Your task to perform on an android device: check android version Image 0: 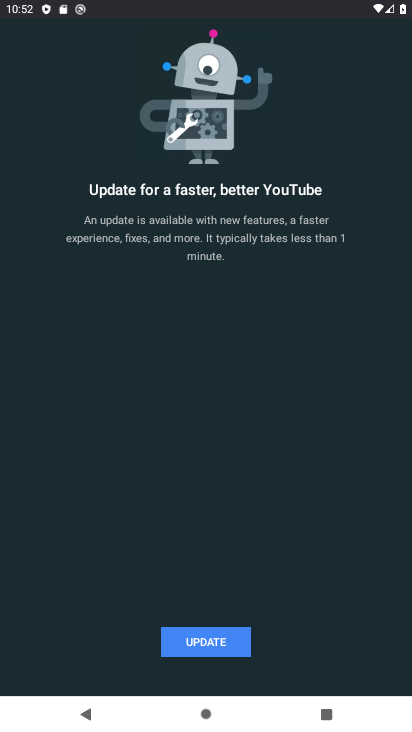
Step 0: click (136, 604)
Your task to perform on an android device: check android version Image 1: 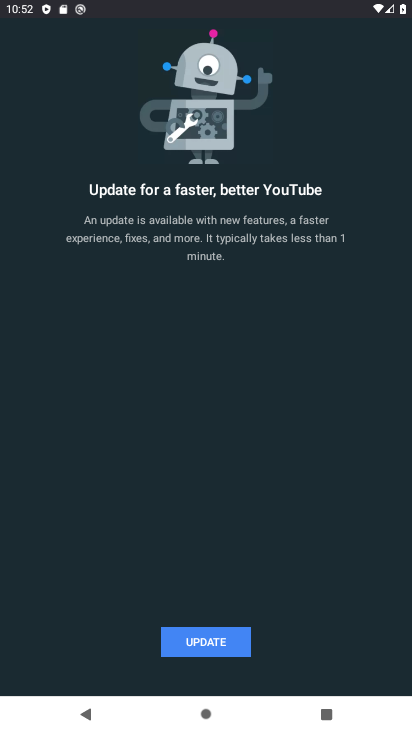
Step 1: press back button
Your task to perform on an android device: check android version Image 2: 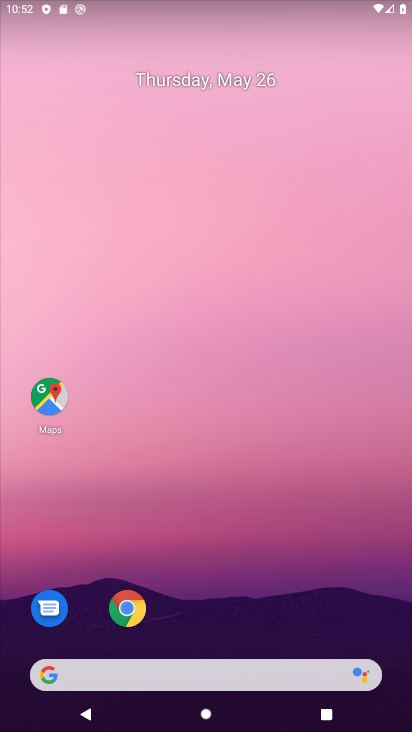
Step 2: drag from (209, 628) to (154, 134)
Your task to perform on an android device: check android version Image 3: 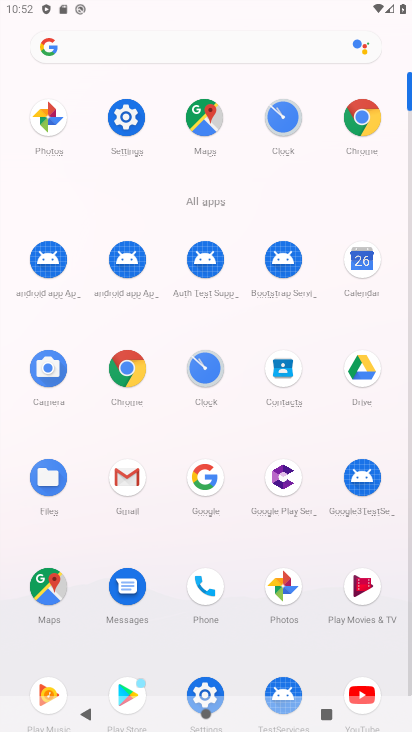
Step 3: click (130, 128)
Your task to perform on an android device: check android version Image 4: 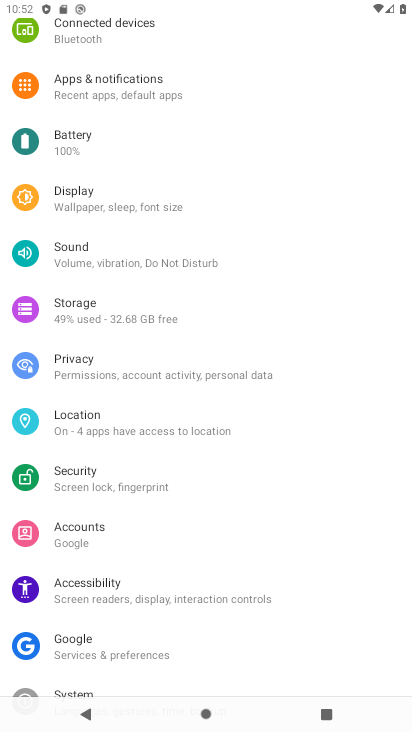
Step 4: drag from (185, 681) to (132, 214)
Your task to perform on an android device: check android version Image 5: 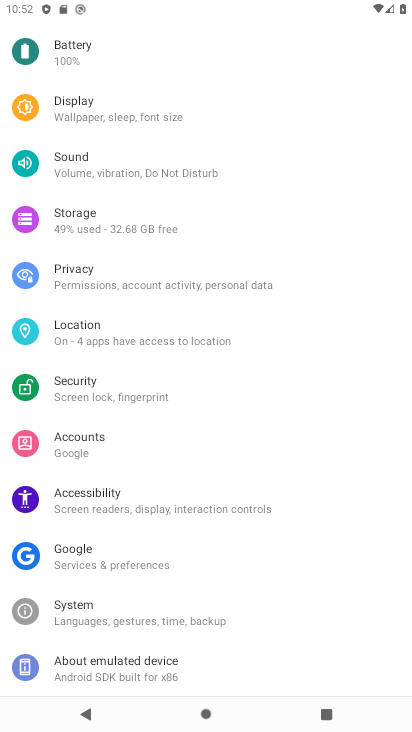
Step 5: click (115, 678)
Your task to perform on an android device: check android version Image 6: 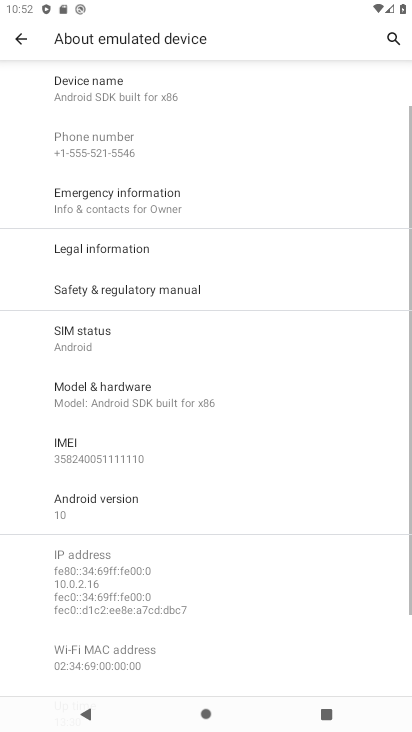
Step 6: click (237, 500)
Your task to perform on an android device: check android version Image 7: 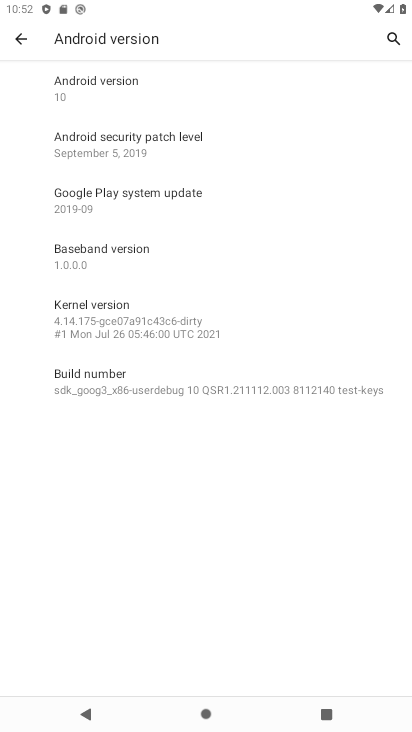
Step 7: task complete